Your task to perform on an android device: Open privacy settings Image 0: 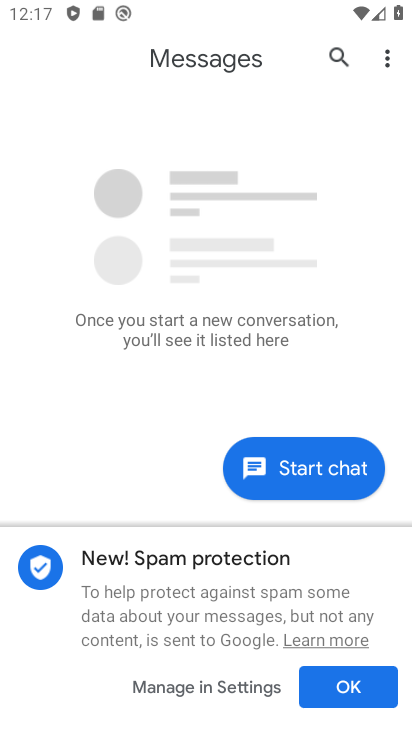
Step 0: press home button
Your task to perform on an android device: Open privacy settings Image 1: 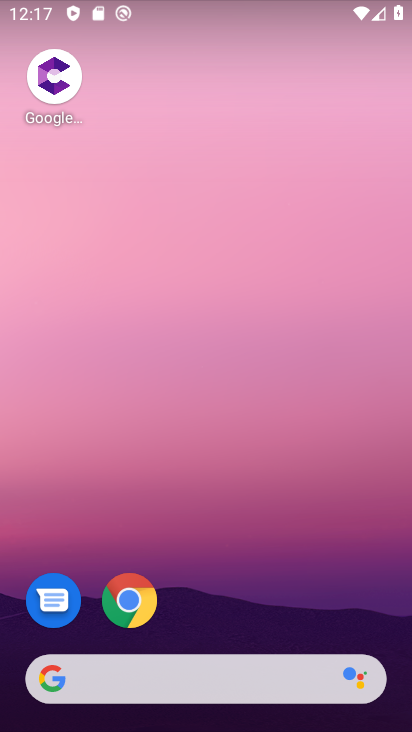
Step 1: drag from (255, 640) to (312, 60)
Your task to perform on an android device: Open privacy settings Image 2: 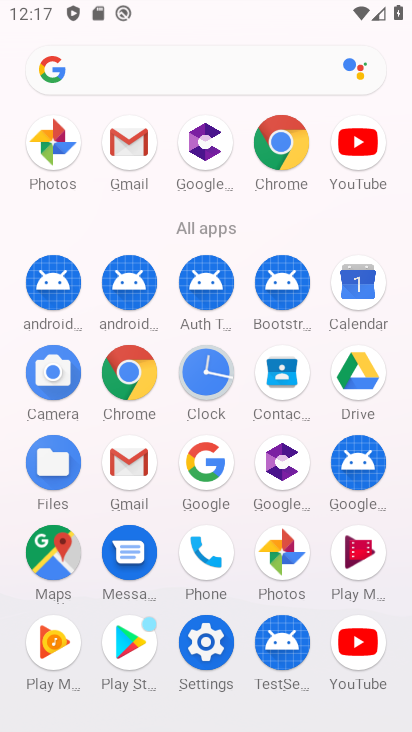
Step 2: click (200, 641)
Your task to perform on an android device: Open privacy settings Image 3: 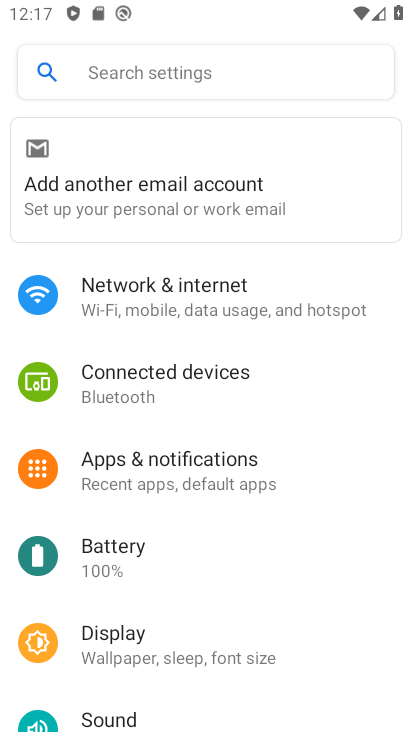
Step 3: drag from (154, 644) to (175, 71)
Your task to perform on an android device: Open privacy settings Image 4: 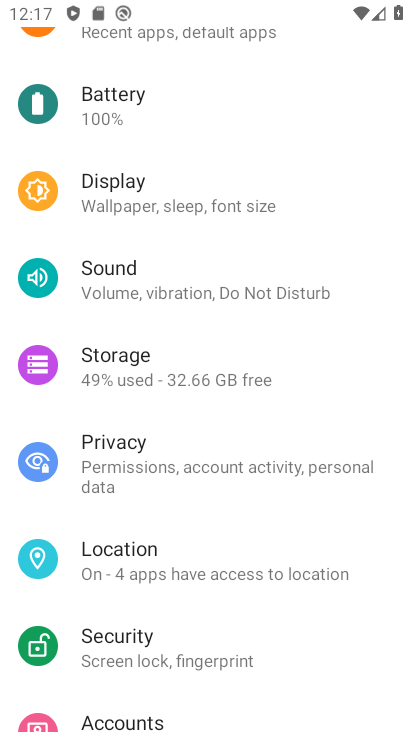
Step 4: click (160, 442)
Your task to perform on an android device: Open privacy settings Image 5: 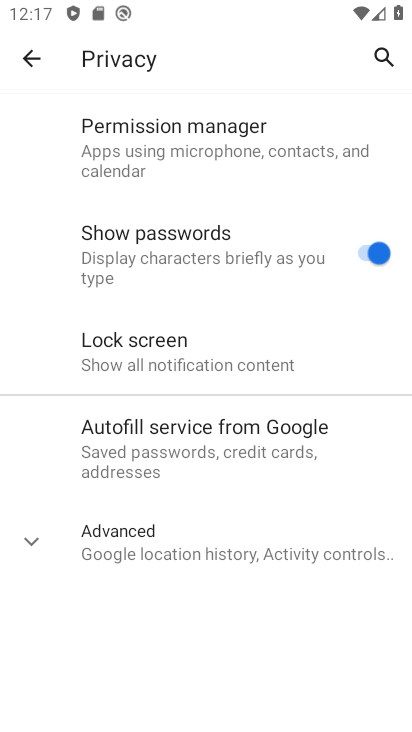
Step 5: click (59, 541)
Your task to perform on an android device: Open privacy settings Image 6: 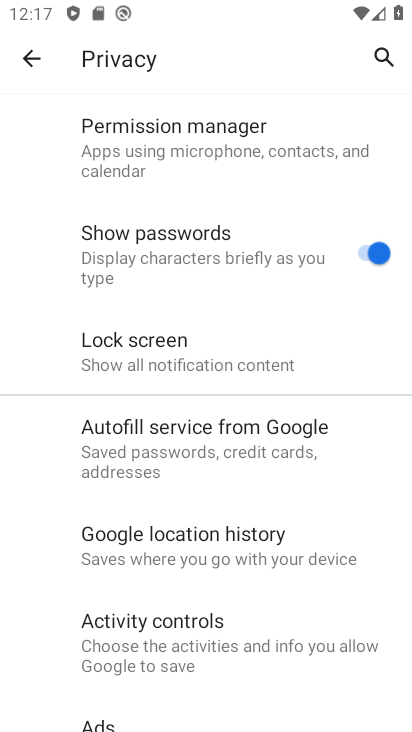
Step 6: task complete